Your task to perform on an android device: Open Google Maps Image 0: 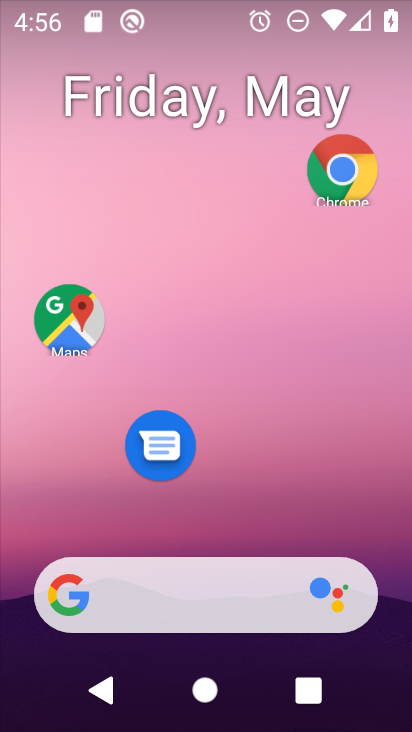
Step 0: click (72, 334)
Your task to perform on an android device: Open Google Maps Image 1: 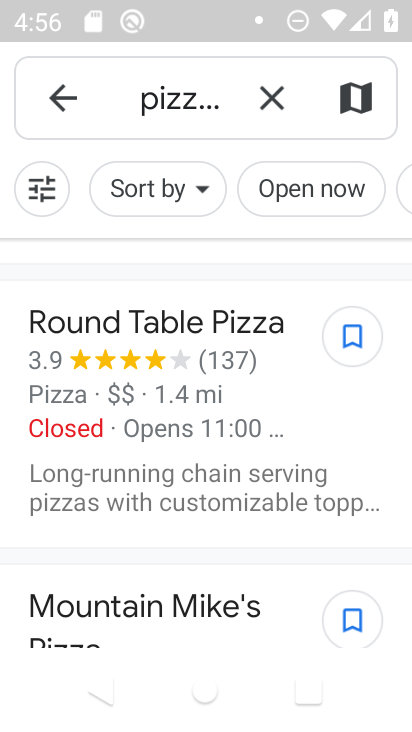
Step 1: task complete